Your task to perform on an android device: remove spam from my inbox in the gmail app Image 0: 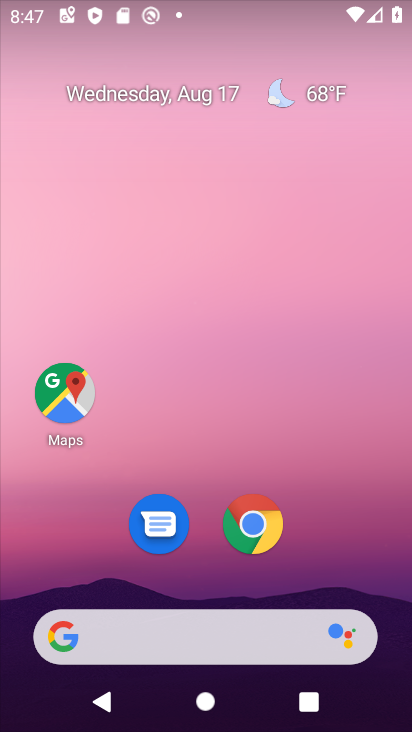
Step 0: drag from (304, 522) to (311, 0)
Your task to perform on an android device: remove spam from my inbox in the gmail app Image 1: 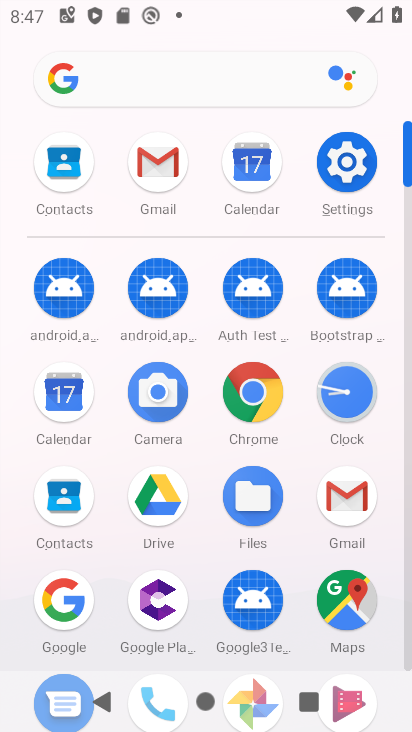
Step 1: click (161, 163)
Your task to perform on an android device: remove spam from my inbox in the gmail app Image 2: 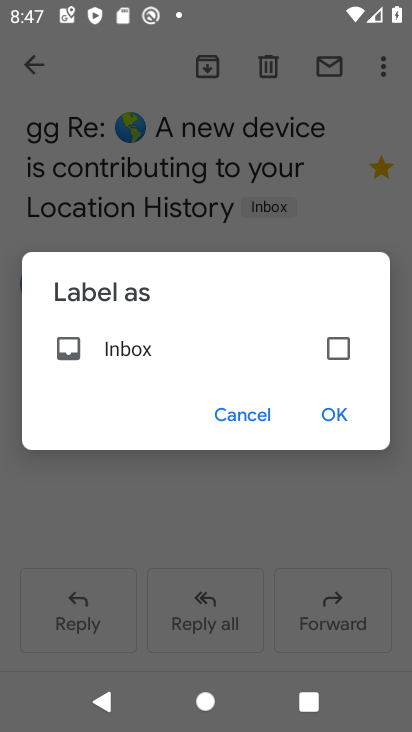
Step 2: click (339, 412)
Your task to perform on an android device: remove spam from my inbox in the gmail app Image 3: 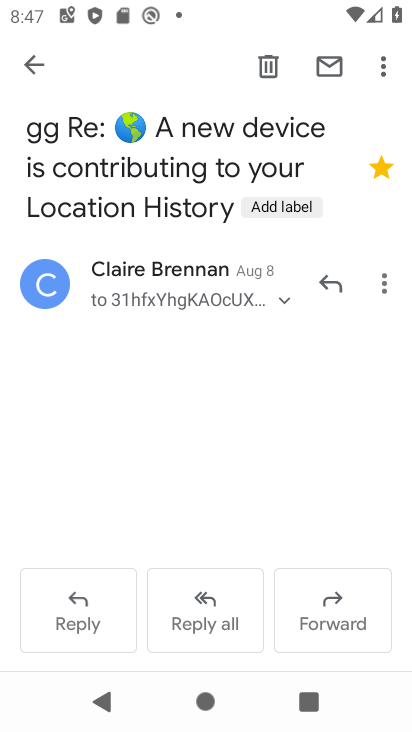
Step 3: click (35, 65)
Your task to perform on an android device: remove spam from my inbox in the gmail app Image 4: 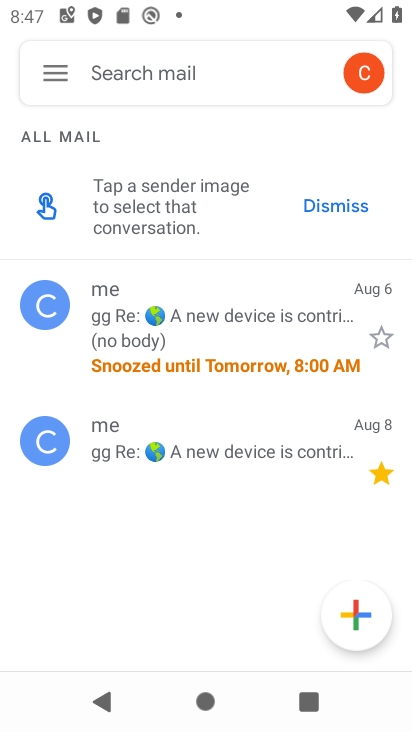
Step 4: click (60, 70)
Your task to perform on an android device: remove spam from my inbox in the gmail app Image 5: 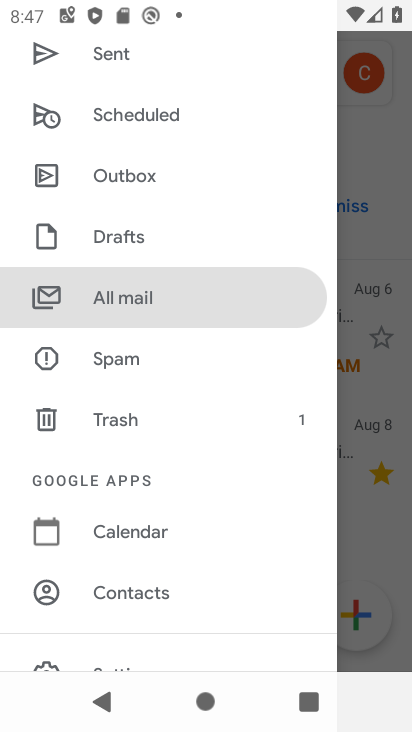
Step 5: click (146, 355)
Your task to perform on an android device: remove spam from my inbox in the gmail app Image 6: 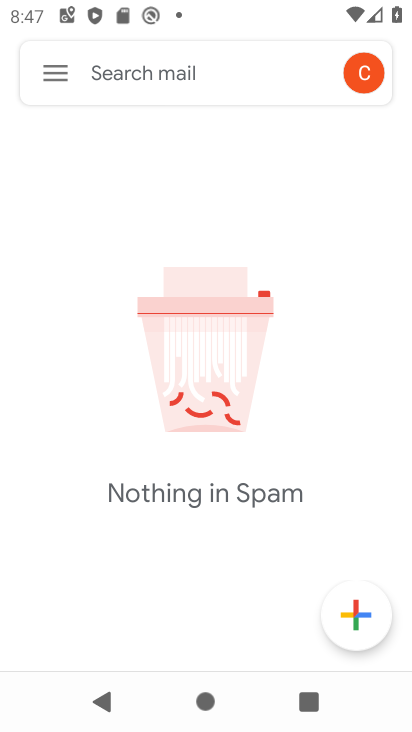
Step 6: task complete